Your task to perform on an android device: Go to battery settings Image 0: 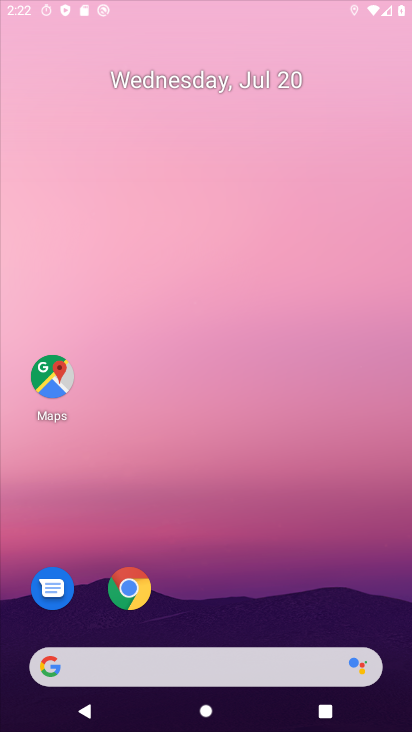
Step 0: click (228, 47)
Your task to perform on an android device: Go to battery settings Image 1: 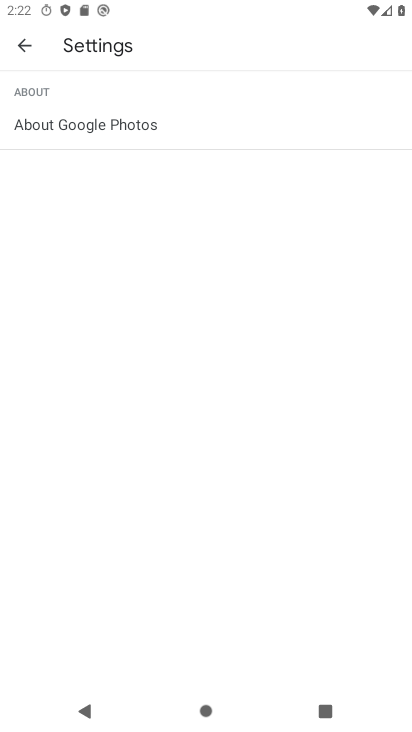
Step 1: drag from (242, 703) to (325, 179)
Your task to perform on an android device: Go to battery settings Image 2: 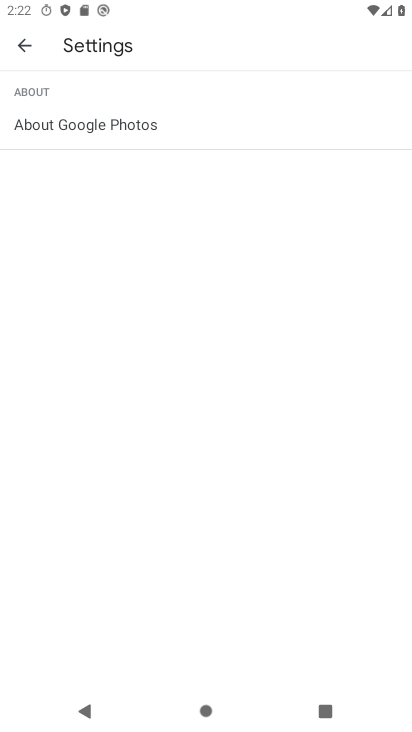
Step 2: press home button
Your task to perform on an android device: Go to battery settings Image 3: 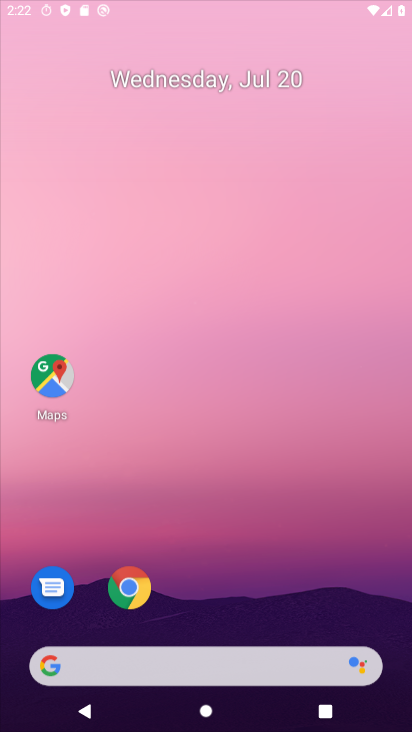
Step 3: drag from (209, 596) to (284, 18)
Your task to perform on an android device: Go to battery settings Image 4: 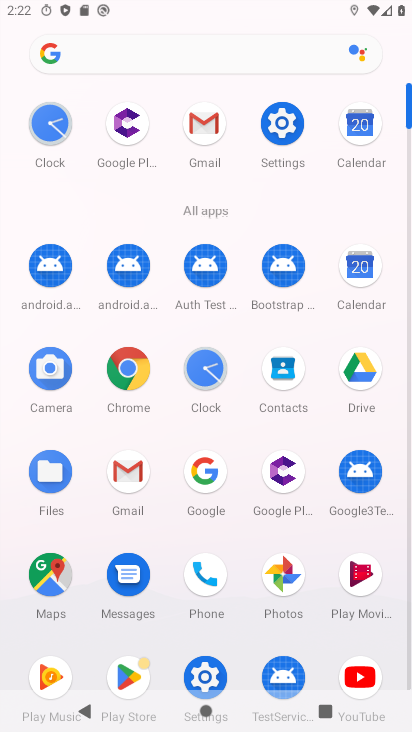
Step 4: click (281, 120)
Your task to perform on an android device: Go to battery settings Image 5: 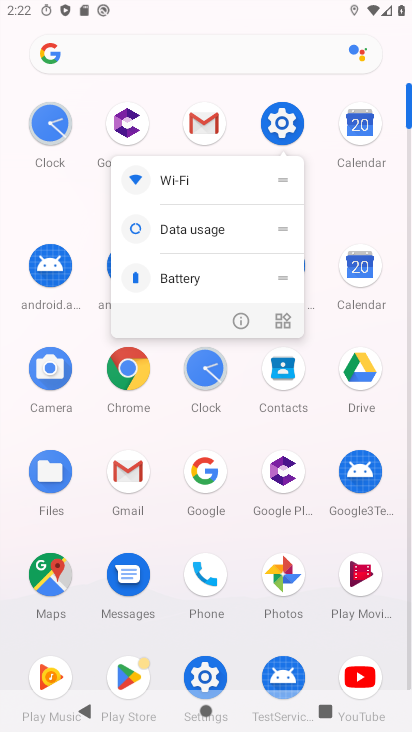
Step 5: click (233, 322)
Your task to perform on an android device: Go to battery settings Image 6: 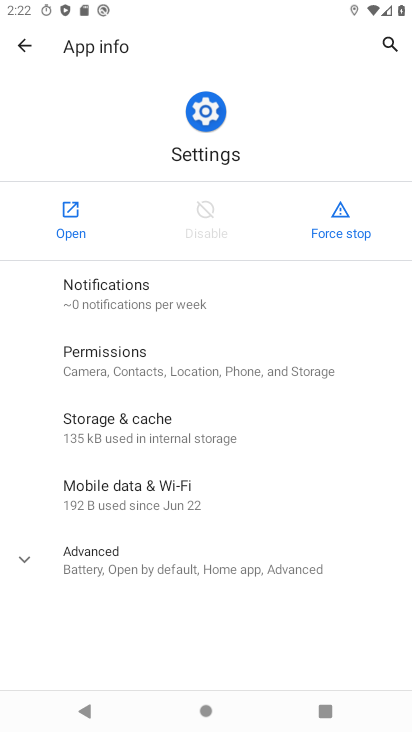
Step 6: click (73, 232)
Your task to perform on an android device: Go to battery settings Image 7: 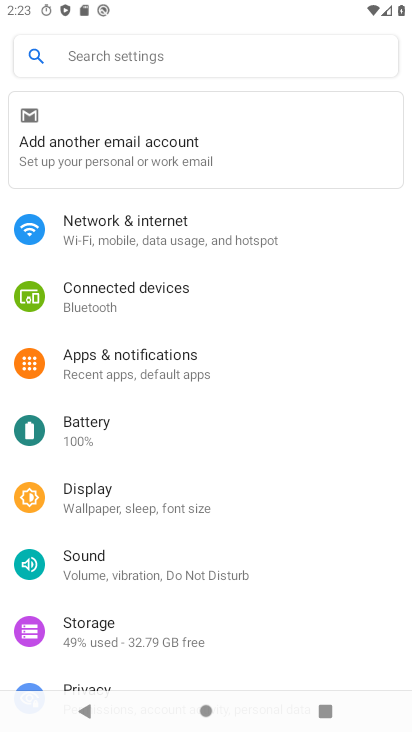
Step 7: click (117, 428)
Your task to perform on an android device: Go to battery settings Image 8: 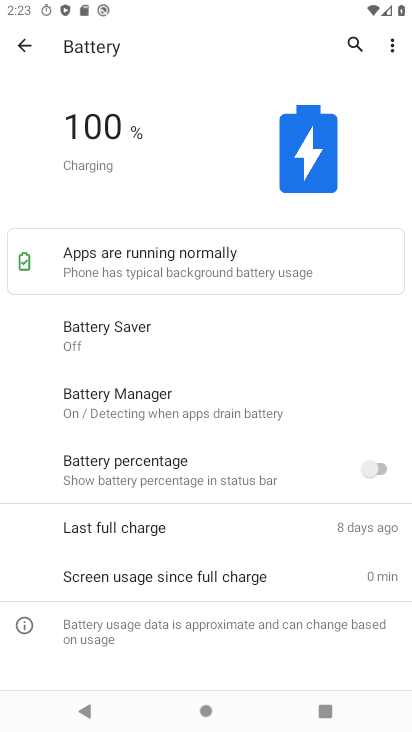
Step 8: task complete